Your task to perform on an android device: Go to battery settings Image 0: 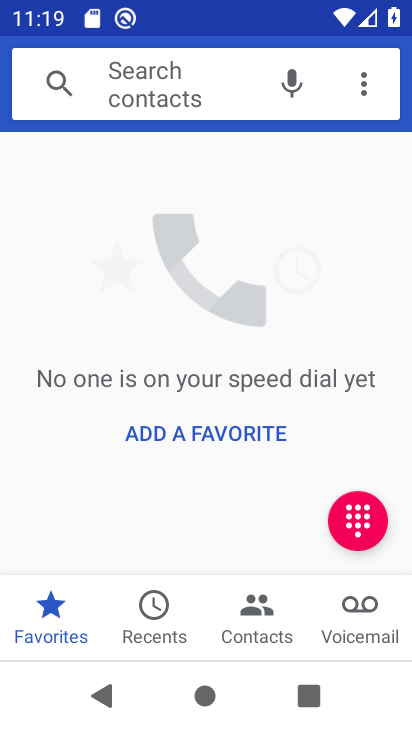
Step 0: press back button
Your task to perform on an android device: Go to battery settings Image 1: 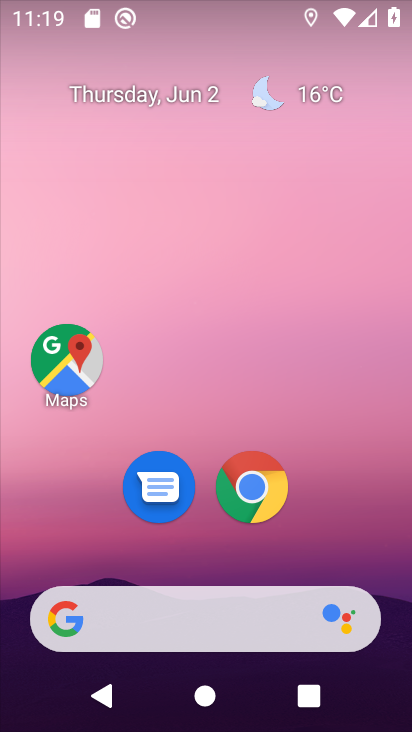
Step 1: drag from (335, 459) to (234, 12)
Your task to perform on an android device: Go to battery settings Image 2: 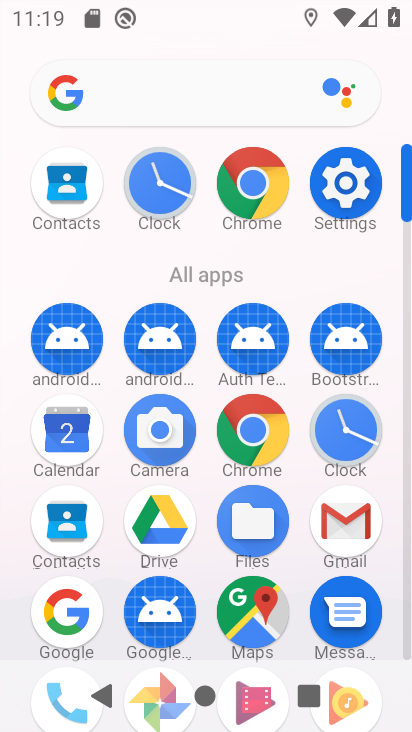
Step 2: click (346, 184)
Your task to perform on an android device: Go to battery settings Image 3: 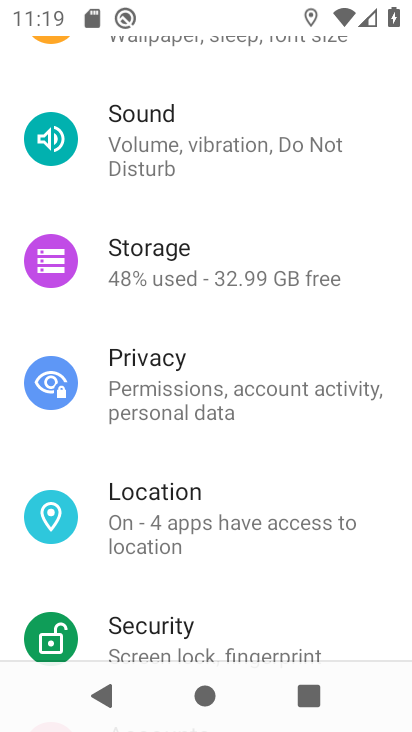
Step 3: drag from (213, 315) to (224, 422)
Your task to perform on an android device: Go to battery settings Image 4: 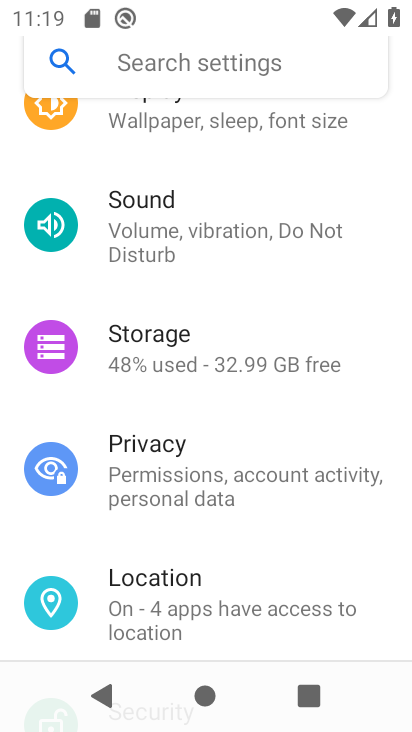
Step 4: drag from (218, 286) to (231, 403)
Your task to perform on an android device: Go to battery settings Image 5: 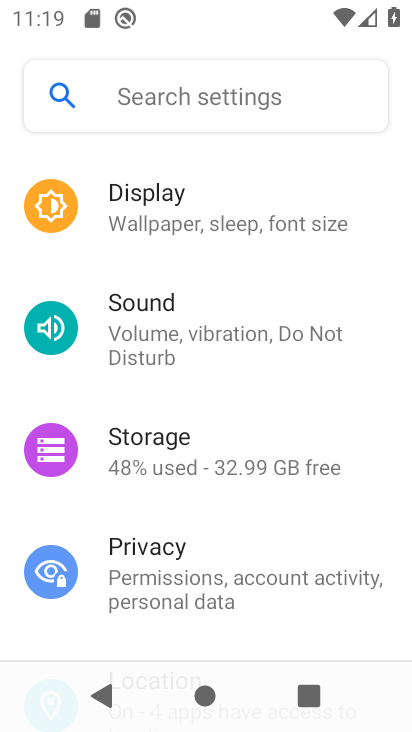
Step 5: drag from (200, 269) to (215, 391)
Your task to perform on an android device: Go to battery settings Image 6: 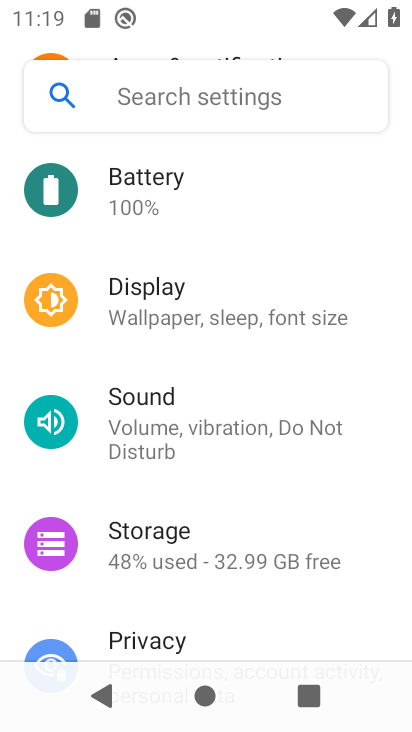
Step 6: drag from (213, 261) to (235, 389)
Your task to perform on an android device: Go to battery settings Image 7: 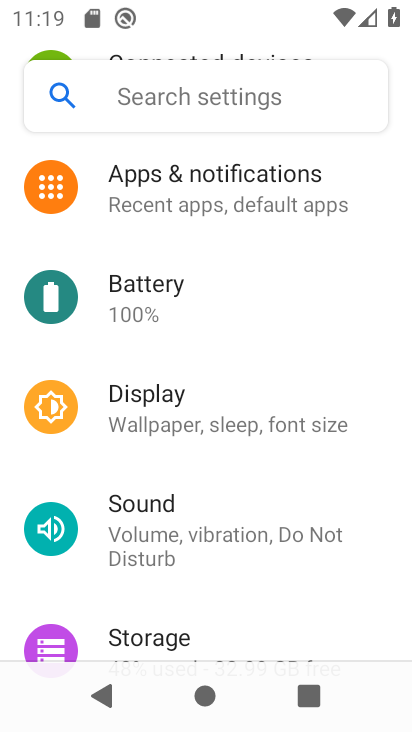
Step 7: click (159, 290)
Your task to perform on an android device: Go to battery settings Image 8: 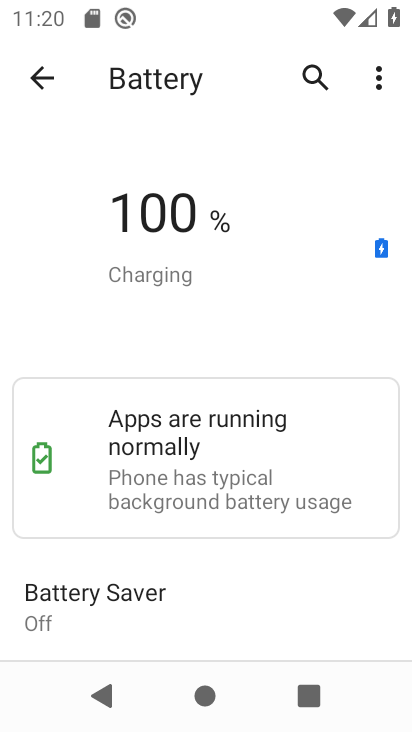
Step 8: task complete